Your task to perform on an android device: Turn on the flashlight Image 0: 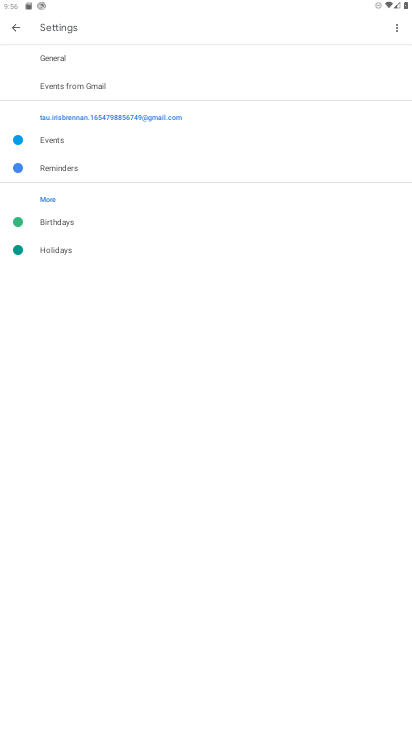
Step 0: press home button
Your task to perform on an android device: Turn on the flashlight Image 1: 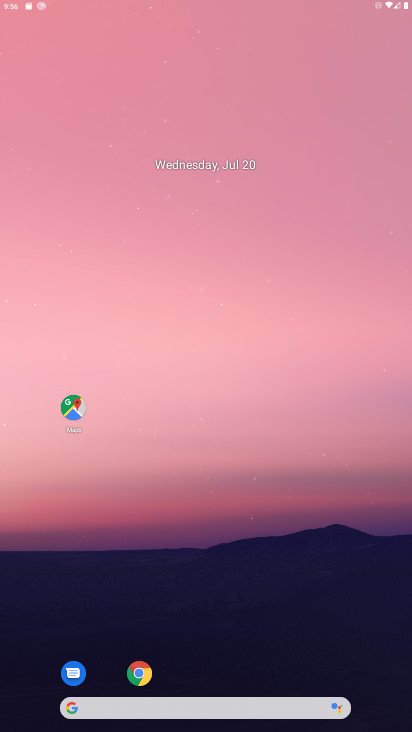
Step 1: drag from (196, 557) to (280, 44)
Your task to perform on an android device: Turn on the flashlight Image 2: 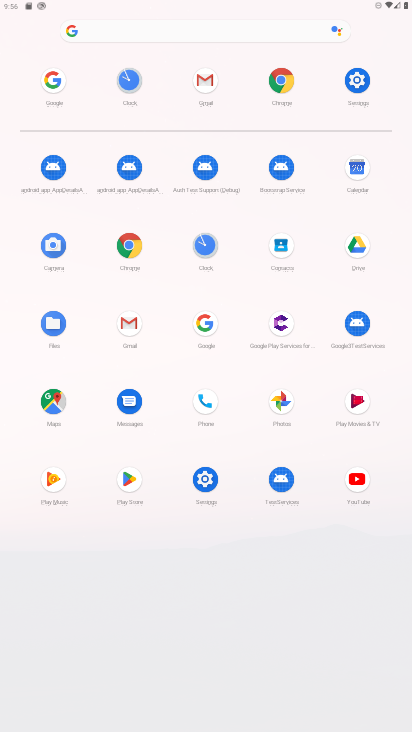
Step 2: click (356, 74)
Your task to perform on an android device: Turn on the flashlight Image 3: 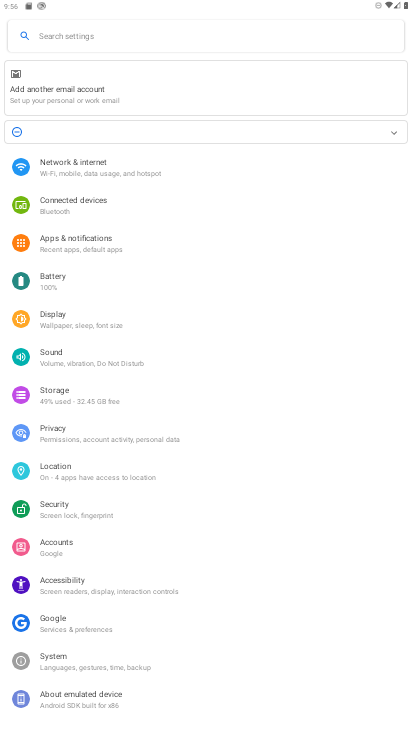
Step 3: click (173, 32)
Your task to perform on an android device: Turn on the flashlight Image 4: 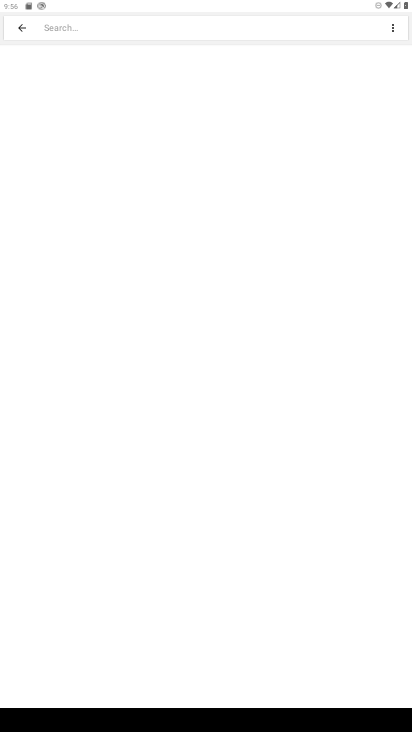
Step 4: type "flashlight"
Your task to perform on an android device: Turn on the flashlight Image 5: 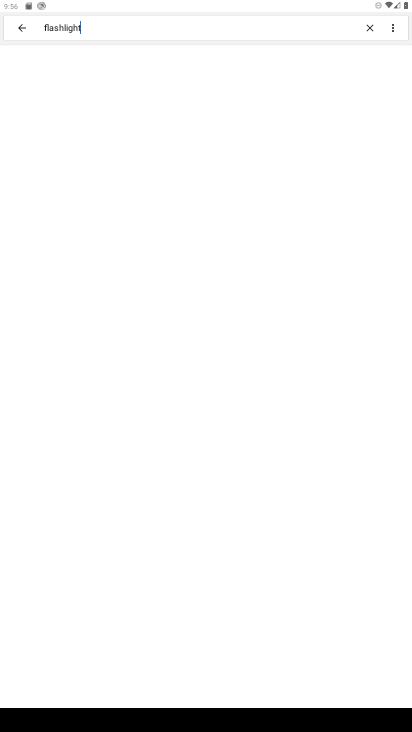
Step 5: type ""
Your task to perform on an android device: Turn on the flashlight Image 6: 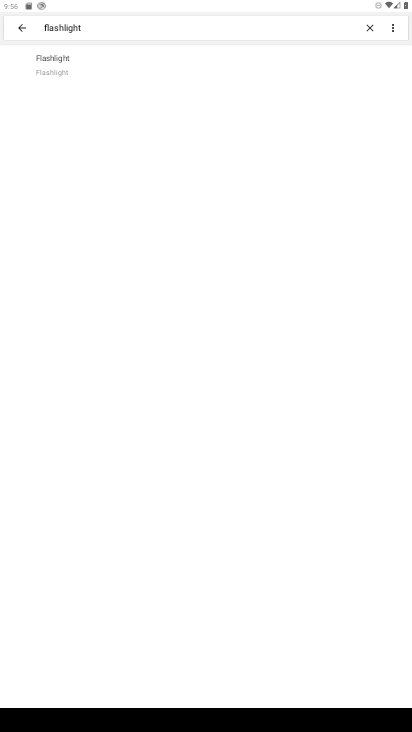
Step 6: click (96, 55)
Your task to perform on an android device: Turn on the flashlight Image 7: 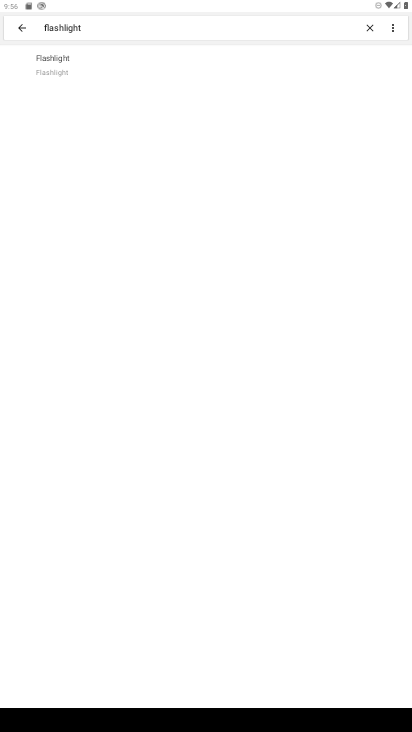
Step 7: click (81, 63)
Your task to perform on an android device: Turn on the flashlight Image 8: 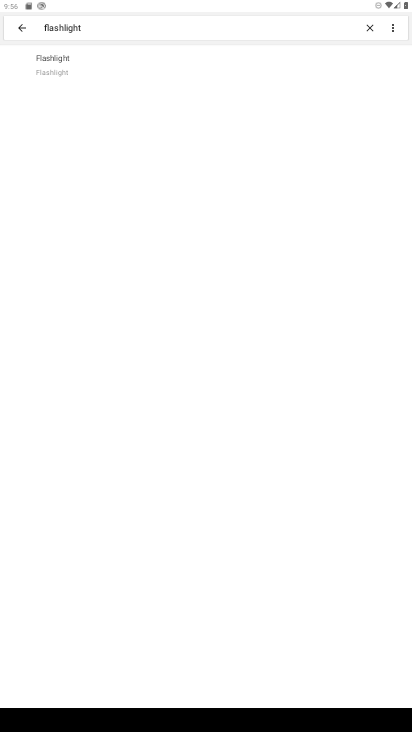
Step 8: click (81, 63)
Your task to perform on an android device: Turn on the flashlight Image 9: 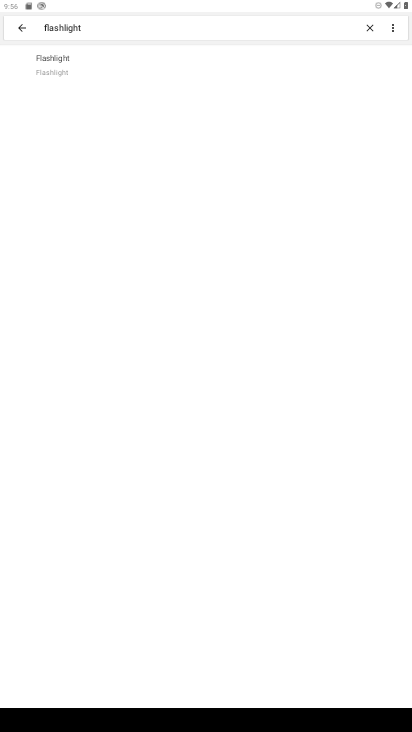
Step 9: click (100, 67)
Your task to perform on an android device: Turn on the flashlight Image 10: 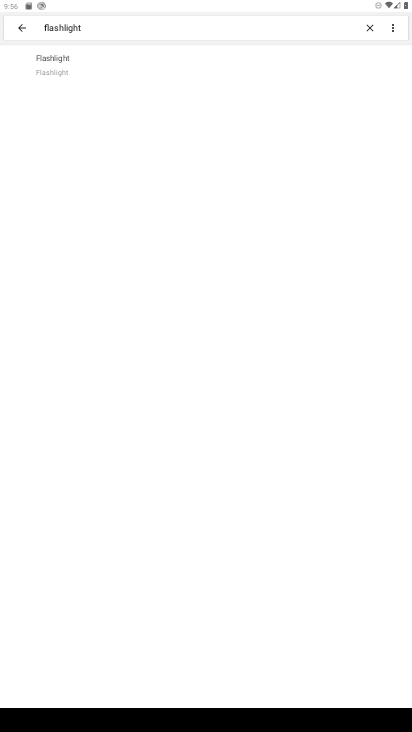
Step 10: task complete